Your task to perform on an android device: Open sound settings Image 0: 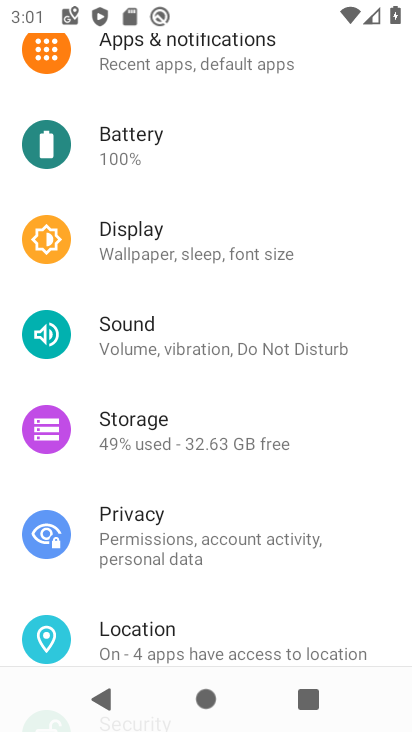
Step 0: click (191, 334)
Your task to perform on an android device: Open sound settings Image 1: 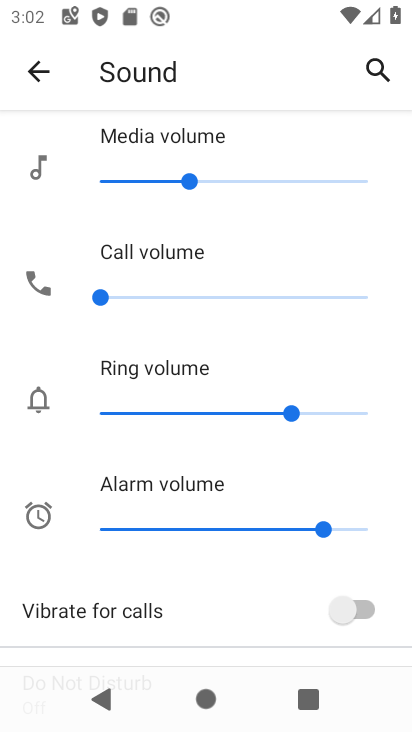
Step 1: task complete